Your task to perform on an android device: Open the phone app and click the voicemail tab. Image 0: 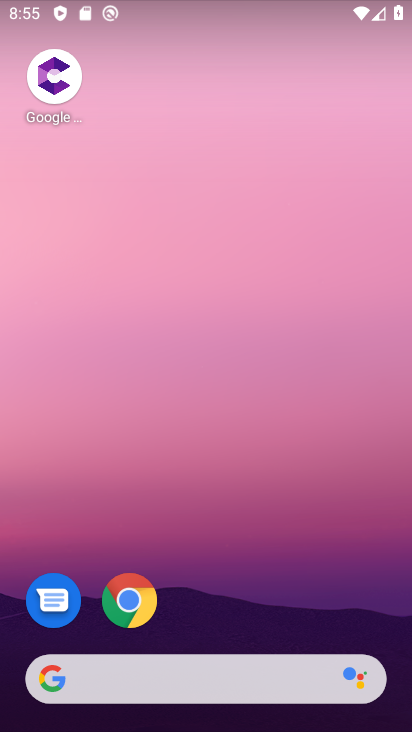
Step 0: drag from (234, 605) to (226, 174)
Your task to perform on an android device: Open the phone app and click the voicemail tab. Image 1: 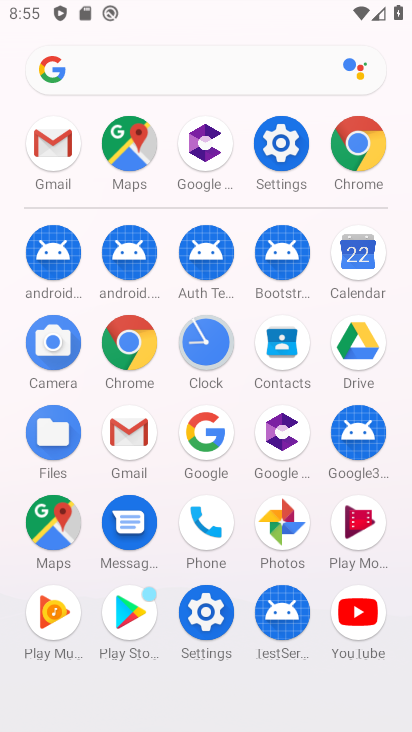
Step 1: click (215, 531)
Your task to perform on an android device: Open the phone app and click the voicemail tab. Image 2: 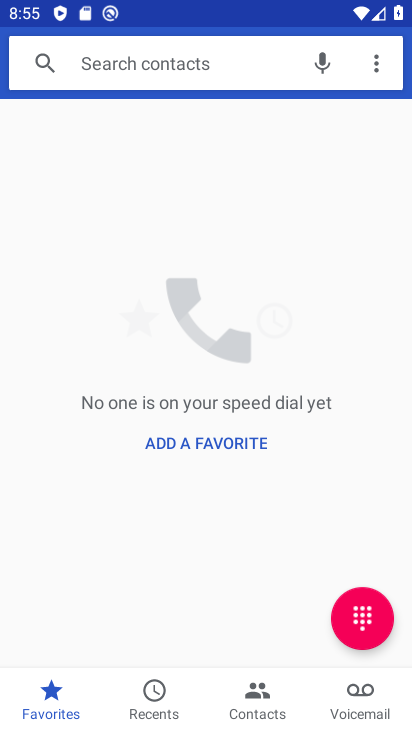
Step 2: click (374, 703)
Your task to perform on an android device: Open the phone app and click the voicemail tab. Image 3: 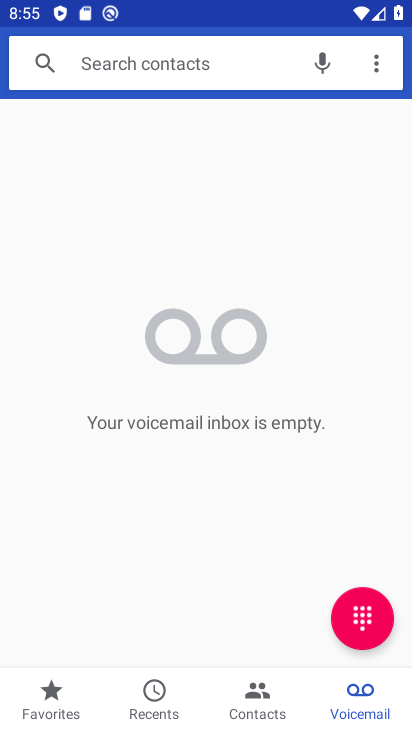
Step 3: task complete